Your task to perform on an android device: What's on my calendar today? Image 0: 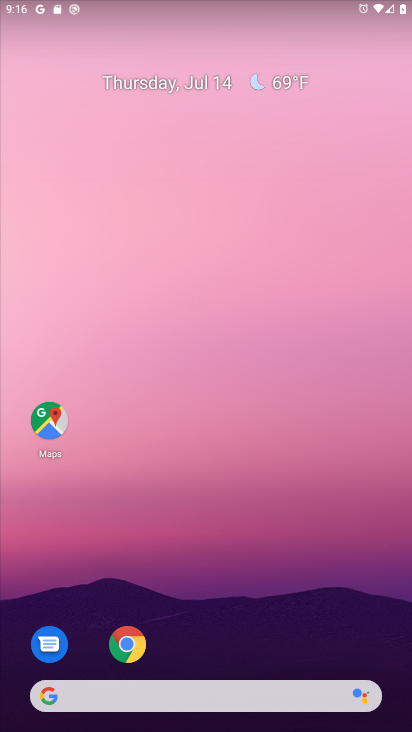
Step 0: click (177, 90)
Your task to perform on an android device: What's on my calendar today? Image 1: 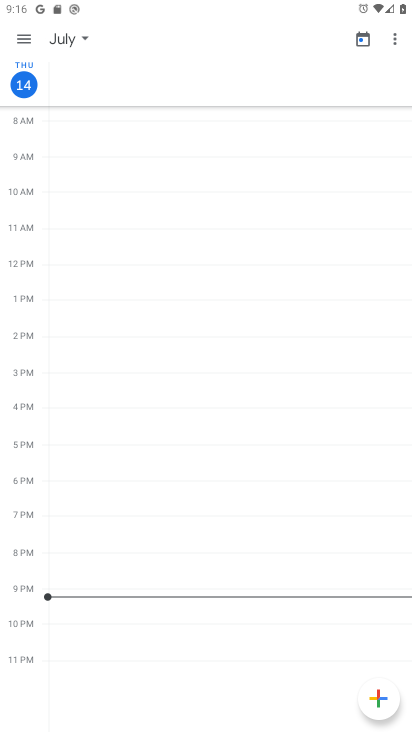
Step 1: click (83, 35)
Your task to perform on an android device: What's on my calendar today? Image 2: 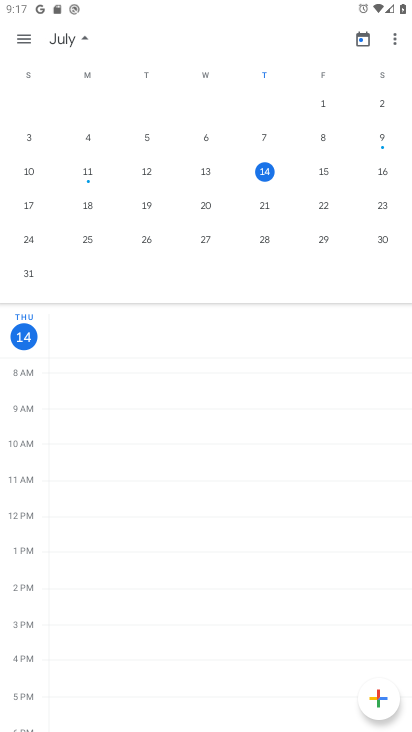
Step 2: task complete